Your task to perform on an android device: open a new tab in the chrome app Image 0: 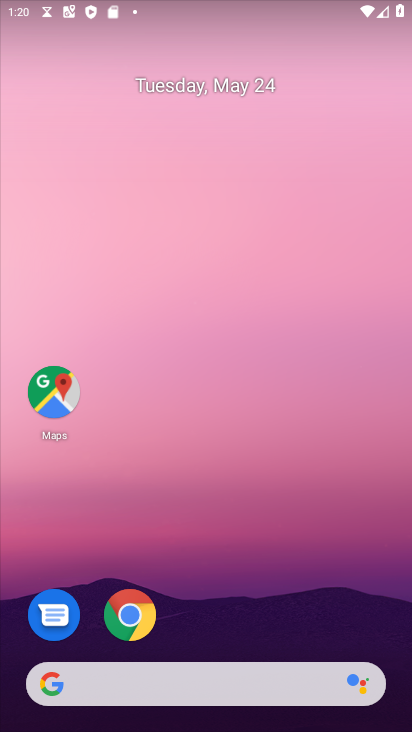
Step 0: click (129, 612)
Your task to perform on an android device: open a new tab in the chrome app Image 1: 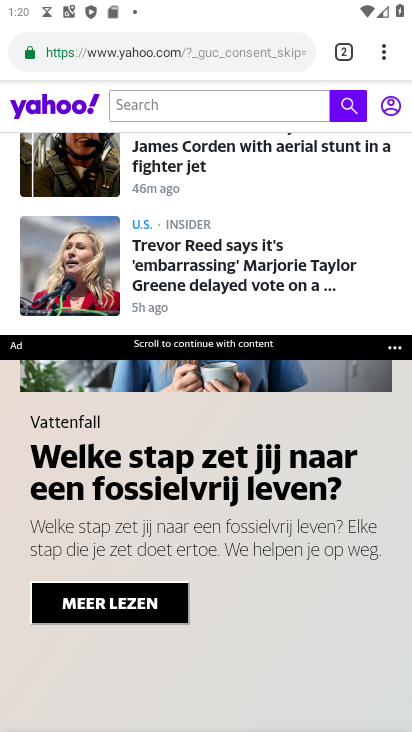
Step 1: click (337, 50)
Your task to perform on an android device: open a new tab in the chrome app Image 2: 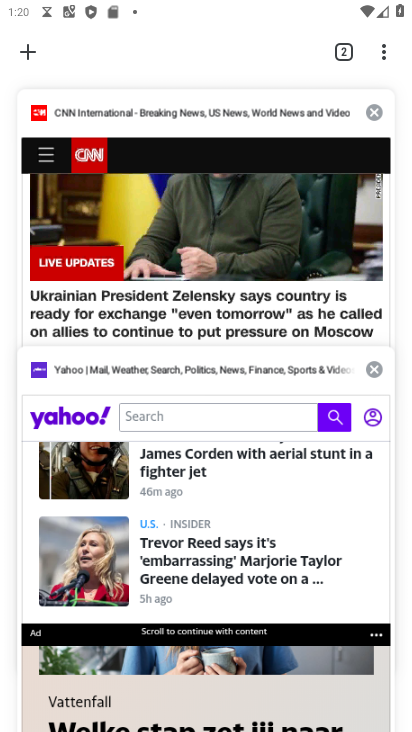
Step 2: click (26, 54)
Your task to perform on an android device: open a new tab in the chrome app Image 3: 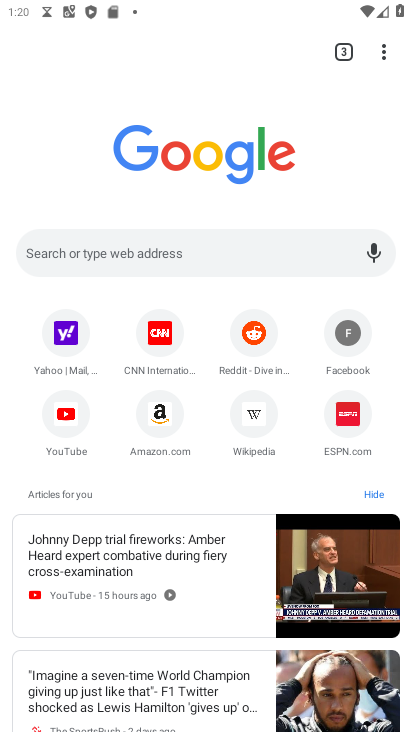
Step 3: task complete